Your task to perform on an android device: Go to calendar. Show me events next week Image 0: 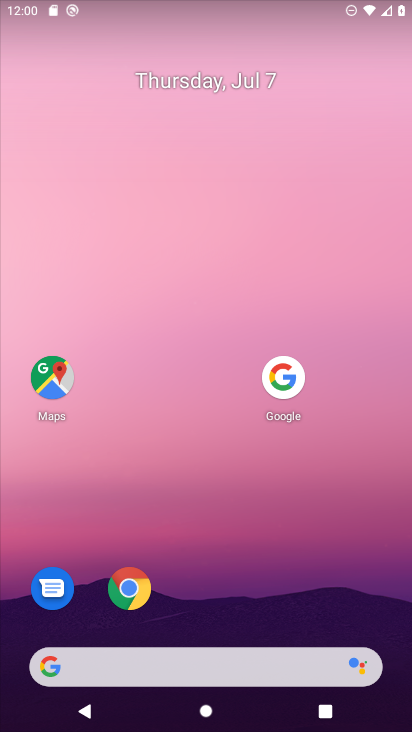
Step 0: drag from (165, 663) to (298, 123)
Your task to perform on an android device: Go to calendar. Show me events next week Image 1: 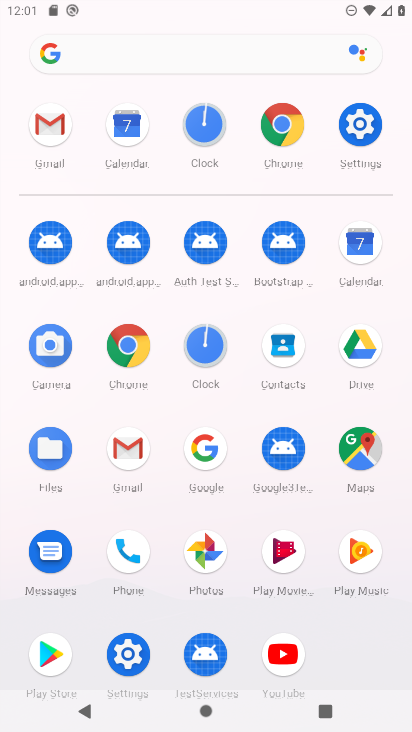
Step 1: click (360, 250)
Your task to perform on an android device: Go to calendar. Show me events next week Image 2: 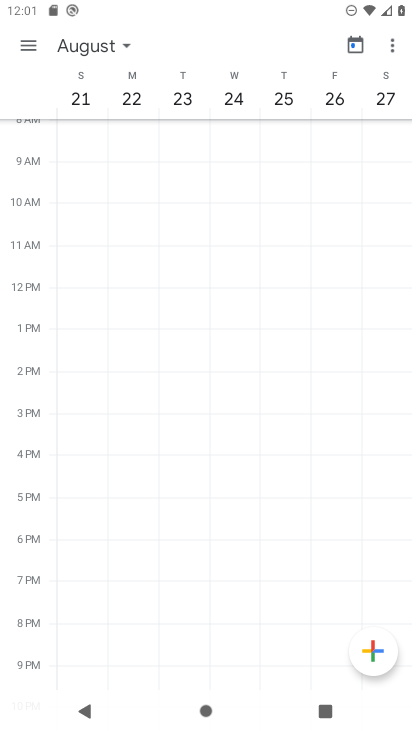
Step 2: click (83, 48)
Your task to perform on an android device: Go to calendar. Show me events next week Image 3: 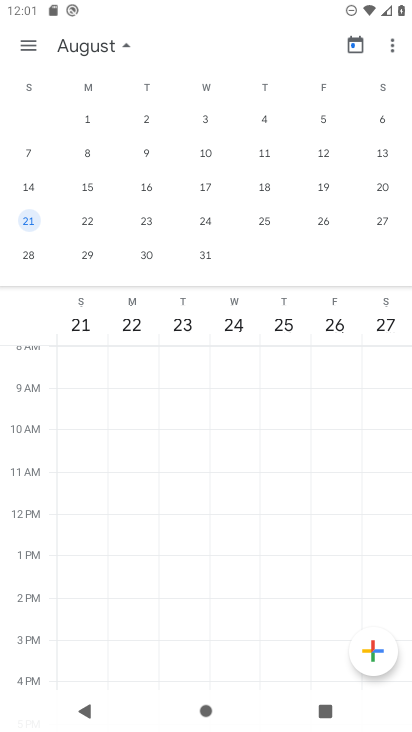
Step 3: drag from (89, 168) to (410, 209)
Your task to perform on an android device: Go to calendar. Show me events next week Image 4: 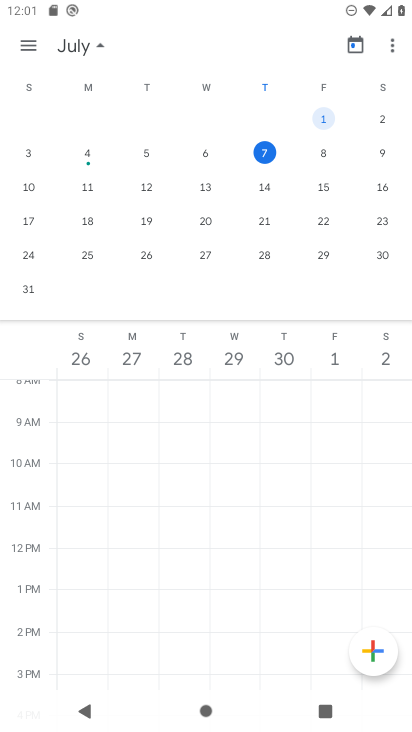
Step 4: click (36, 33)
Your task to perform on an android device: Go to calendar. Show me events next week Image 5: 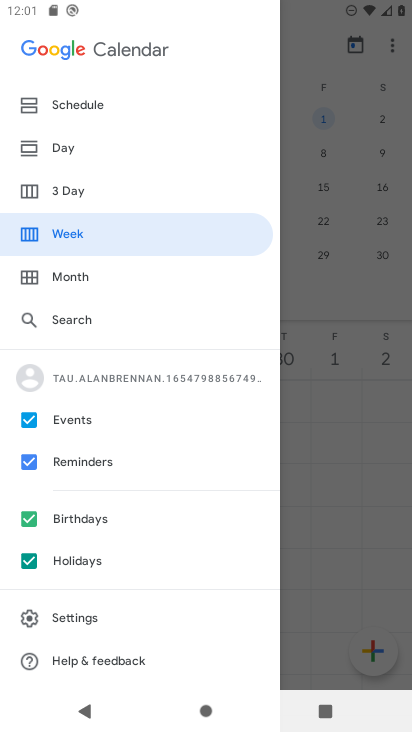
Step 5: click (81, 106)
Your task to perform on an android device: Go to calendar. Show me events next week Image 6: 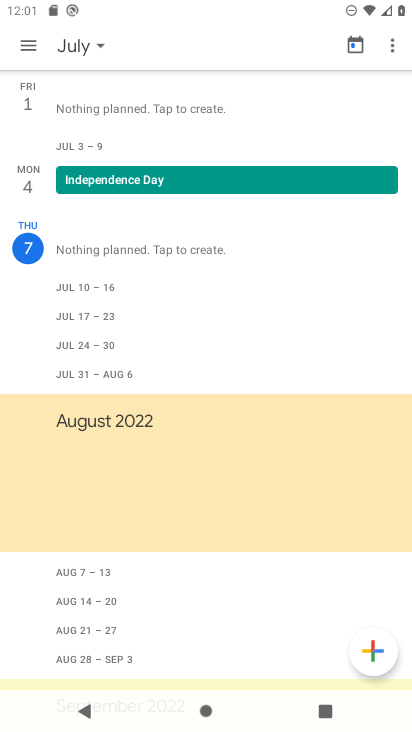
Step 6: task complete